Your task to perform on an android device: Find coffee shops on Maps Image 0: 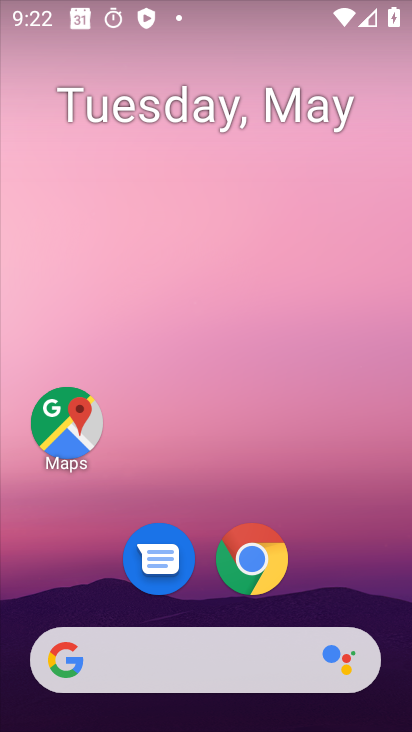
Step 0: press back button
Your task to perform on an android device: Find coffee shops on Maps Image 1: 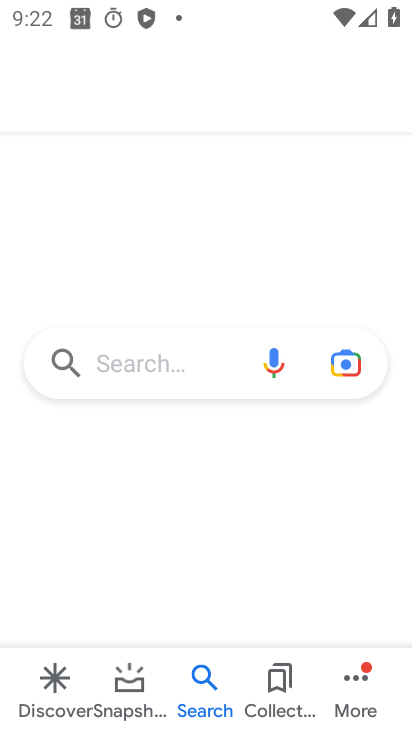
Step 1: press back button
Your task to perform on an android device: Find coffee shops on Maps Image 2: 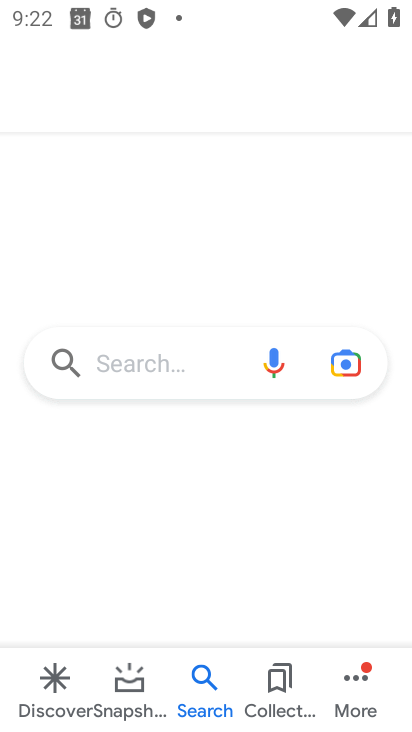
Step 2: press home button
Your task to perform on an android device: Find coffee shops on Maps Image 3: 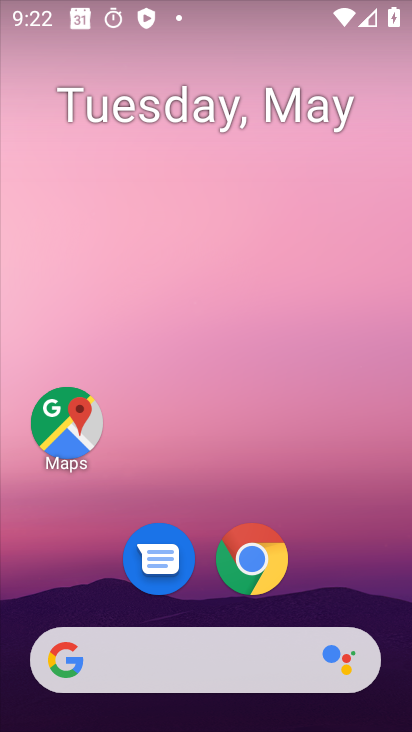
Step 3: drag from (355, 572) to (61, 86)
Your task to perform on an android device: Find coffee shops on Maps Image 4: 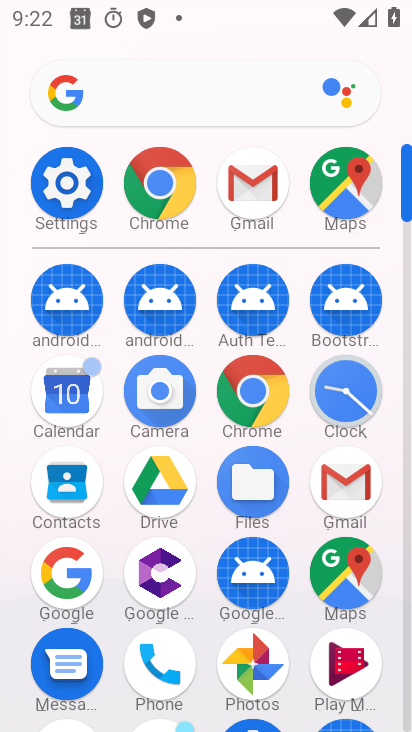
Step 4: click (346, 563)
Your task to perform on an android device: Find coffee shops on Maps Image 5: 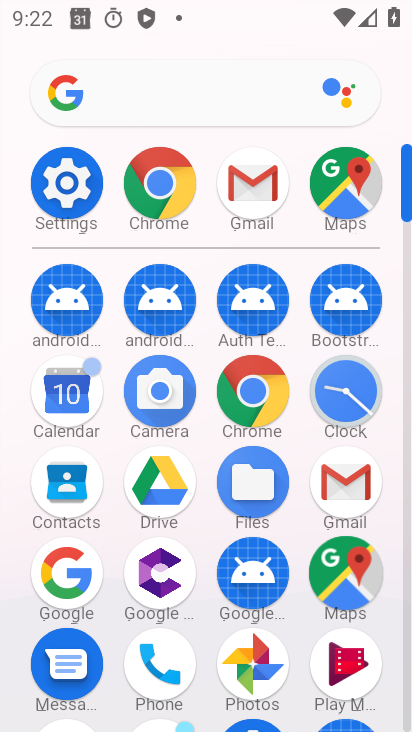
Step 5: click (349, 572)
Your task to perform on an android device: Find coffee shops on Maps Image 6: 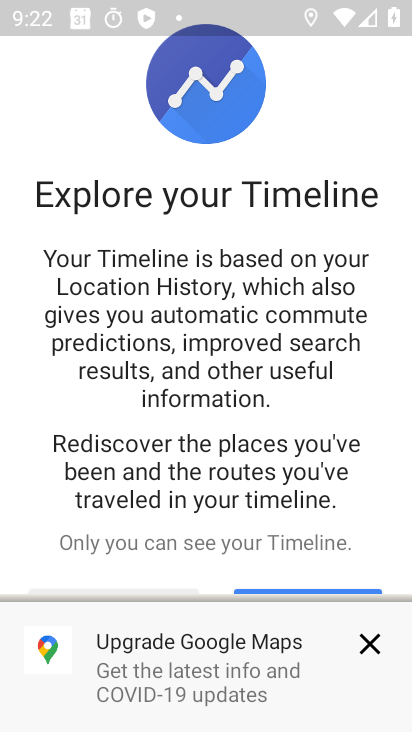
Step 6: click (370, 641)
Your task to perform on an android device: Find coffee shops on Maps Image 7: 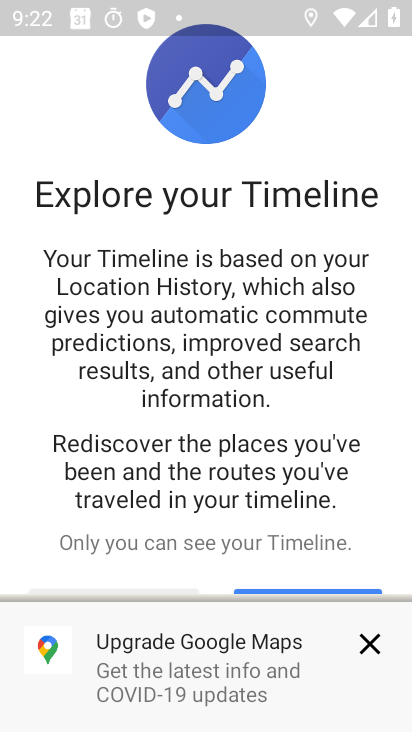
Step 7: click (370, 641)
Your task to perform on an android device: Find coffee shops on Maps Image 8: 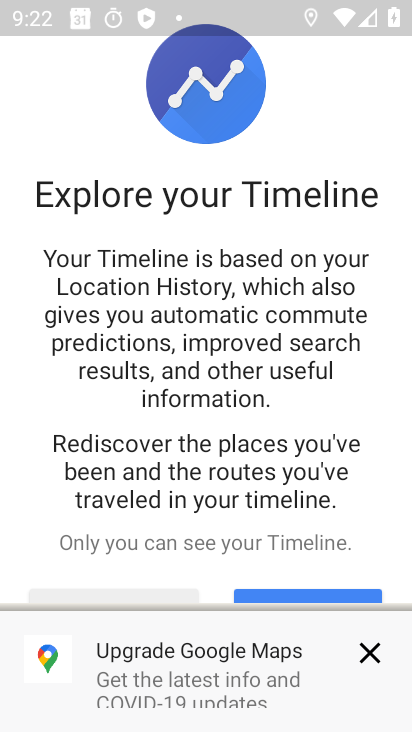
Step 8: click (370, 641)
Your task to perform on an android device: Find coffee shops on Maps Image 9: 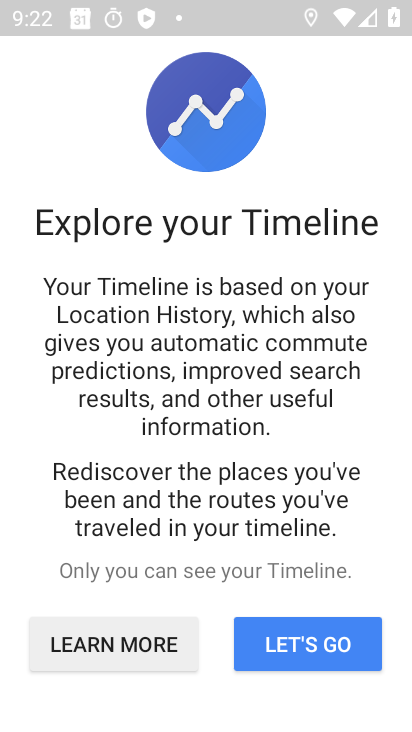
Step 9: click (370, 641)
Your task to perform on an android device: Find coffee shops on Maps Image 10: 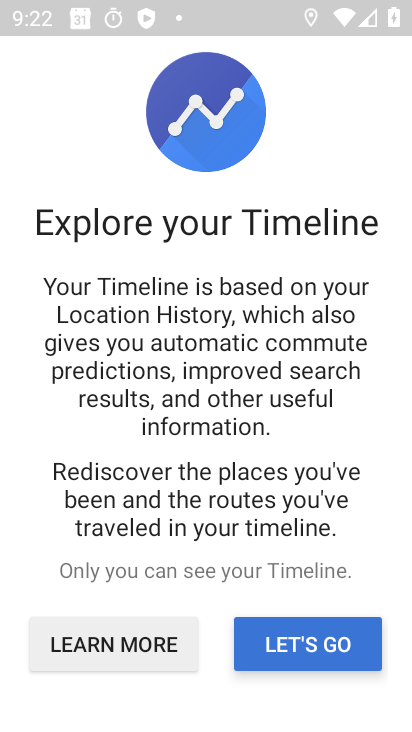
Step 10: click (373, 640)
Your task to perform on an android device: Find coffee shops on Maps Image 11: 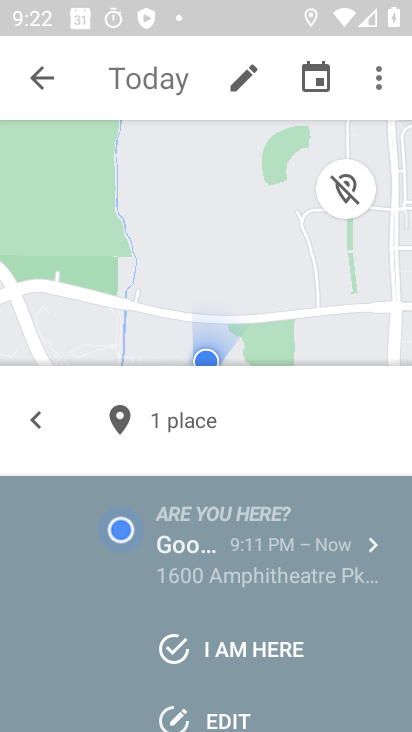
Step 11: click (325, 639)
Your task to perform on an android device: Find coffee shops on Maps Image 12: 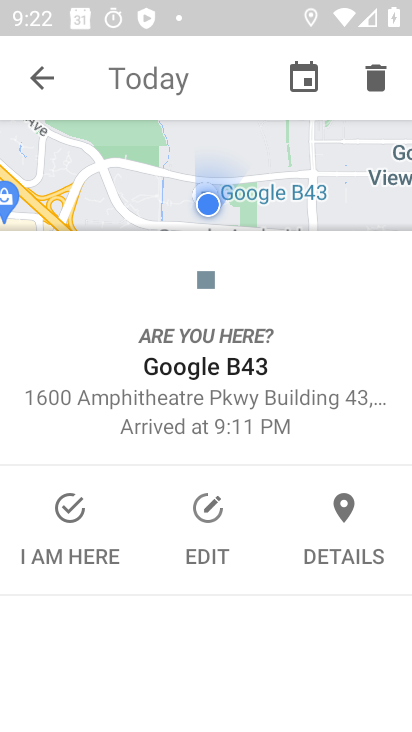
Step 12: click (38, 81)
Your task to perform on an android device: Find coffee shops on Maps Image 13: 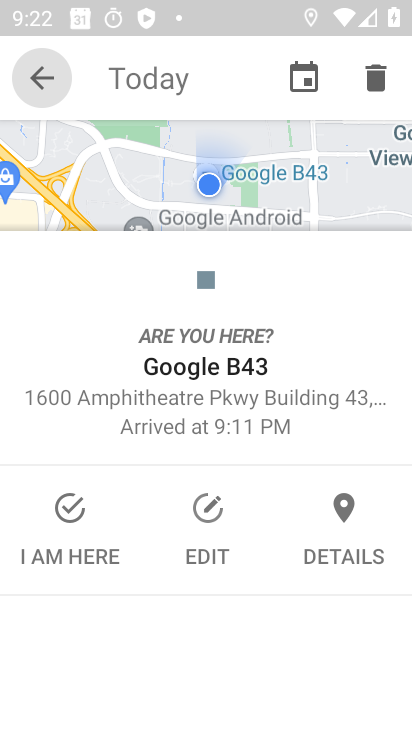
Step 13: click (38, 81)
Your task to perform on an android device: Find coffee shops on Maps Image 14: 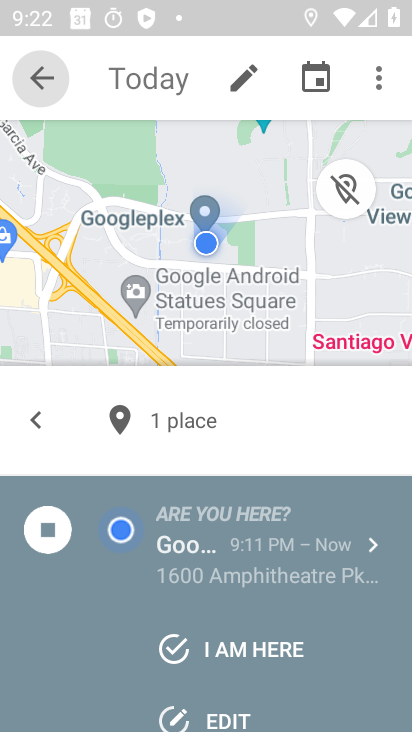
Step 14: click (38, 81)
Your task to perform on an android device: Find coffee shops on Maps Image 15: 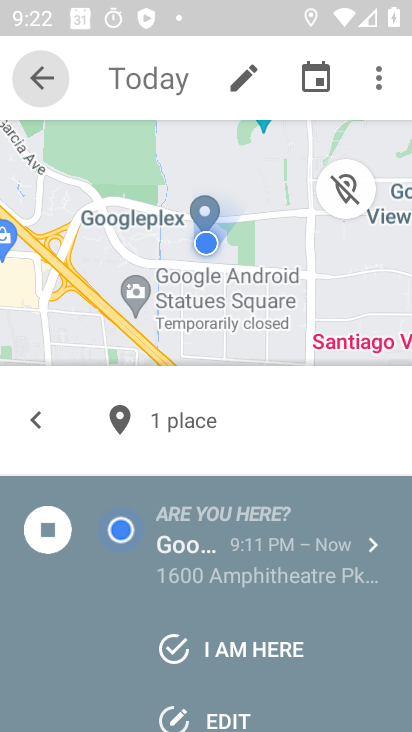
Step 15: click (38, 81)
Your task to perform on an android device: Find coffee shops on Maps Image 16: 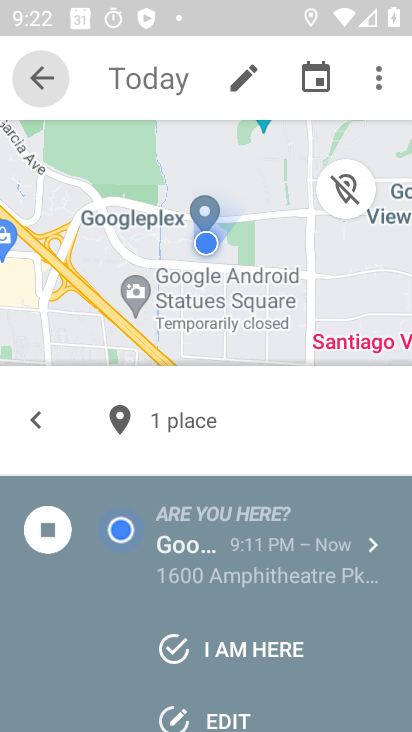
Step 16: click (38, 81)
Your task to perform on an android device: Find coffee shops on Maps Image 17: 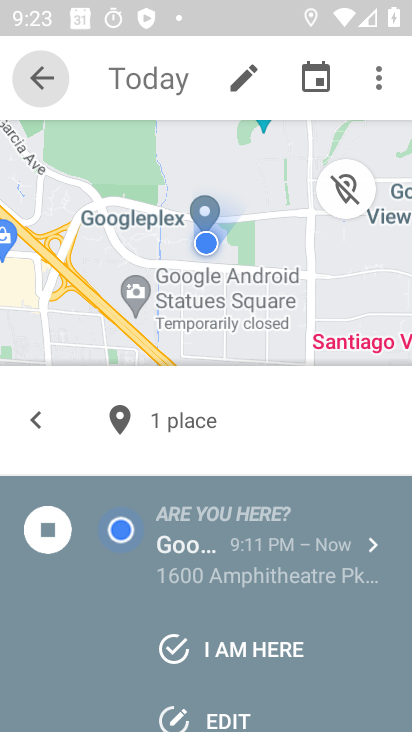
Step 17: click (38, 81)
Your task to perform on an android device: Find coffee shops on Maps Image 18: 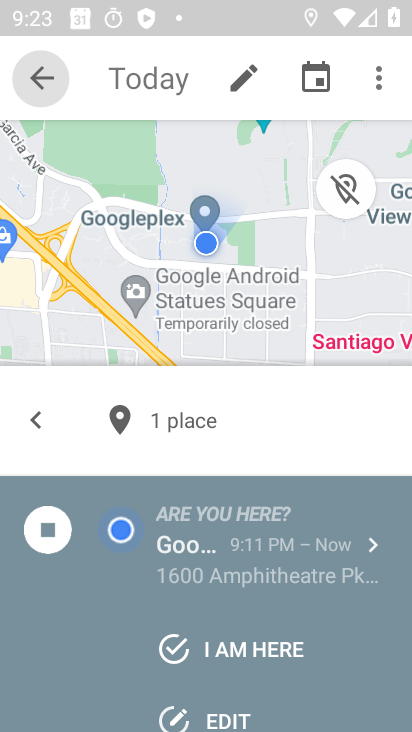
Step 18: click (38, 81)
Your task to perform on an android device: Find coffee shops on Maps Image 19: 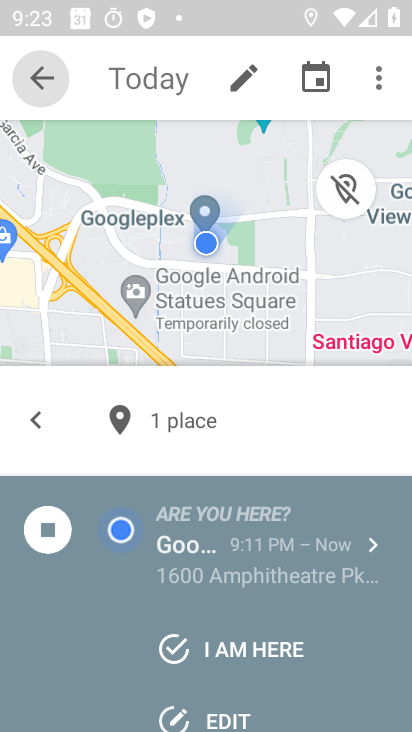
Step 19: click (38, 81)
Your task to perform on an android device: Find coffee shops on Maps Image 20: 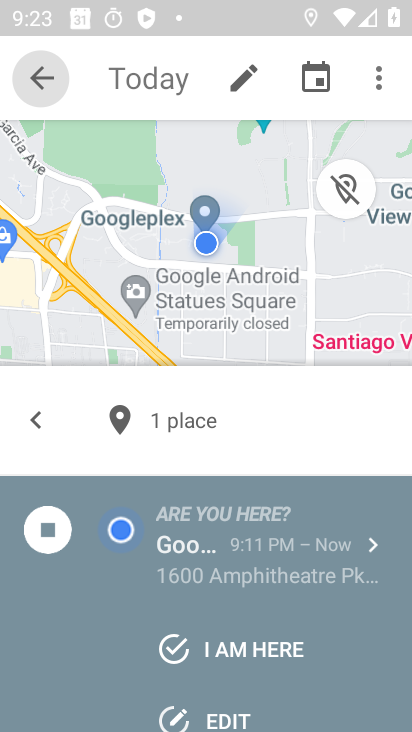
Step 20: press back button
Your task to perform on an android device: Find coffee shops on Maps Image 21: 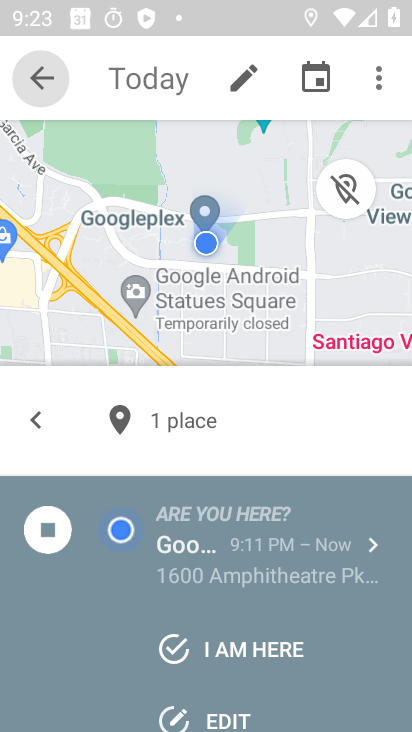
Step 21: press back button
Your task to perform on an android device: Find coffee shops on Maps Image 22: 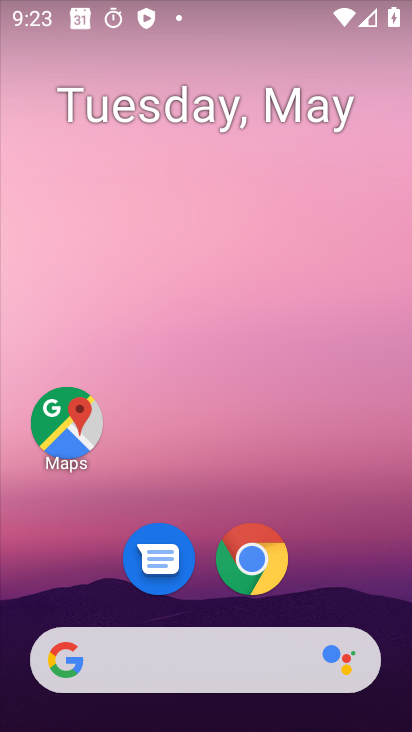
Step 22: drag from (382, 620) to (92, 150)
Your task to perform on an android device: Find coffee shops on Maps Image 23: 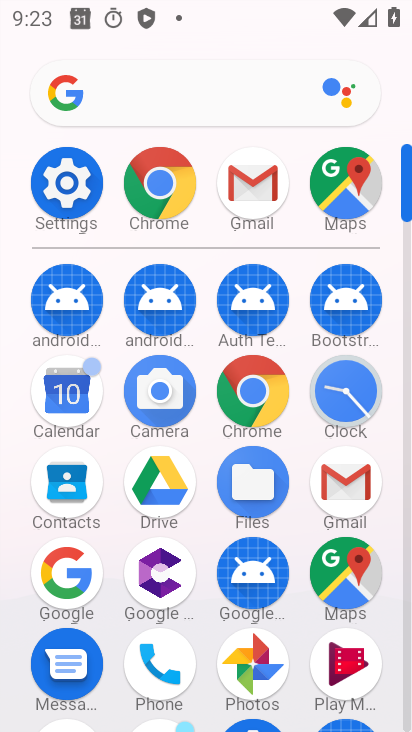
Step 23: click (328, 575)
Your task to perform on an android device: Find coffee shops on Maps Image 24: 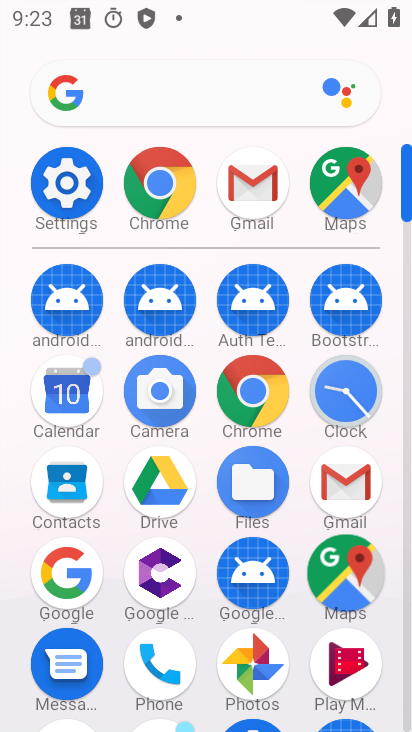
Step 24: click (333, 570)
Your task to perform on an android device: Find coffee shops on Maps Image 25: 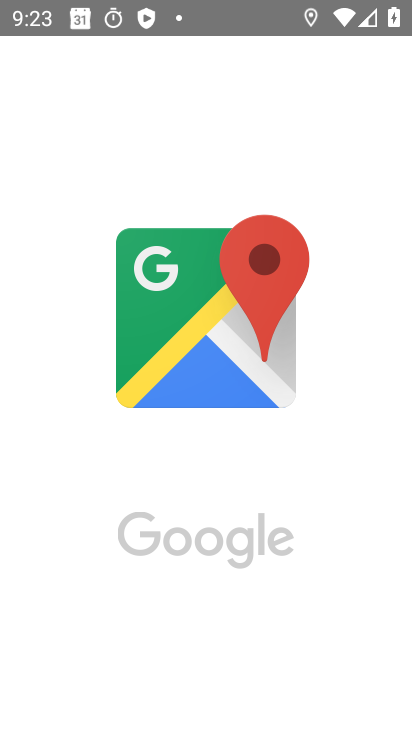
Step 25: click (333, 570)
Your task to perform on an android device: Find coffee shops on Maps Image 26: 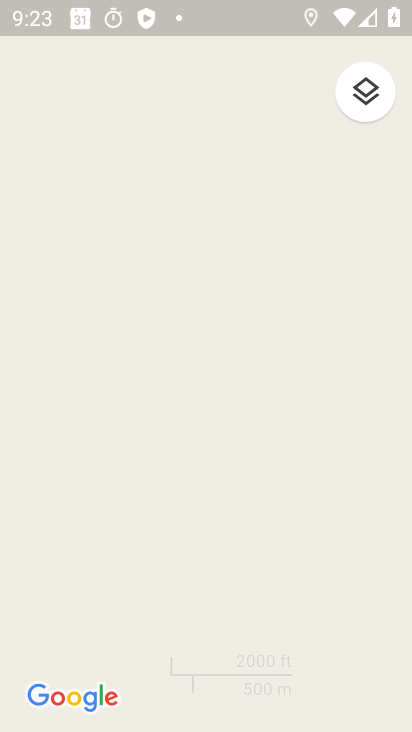
Step 26: click (356, 86)
Your task to perform on an android device: Find coffee shops on Maps Image 27: 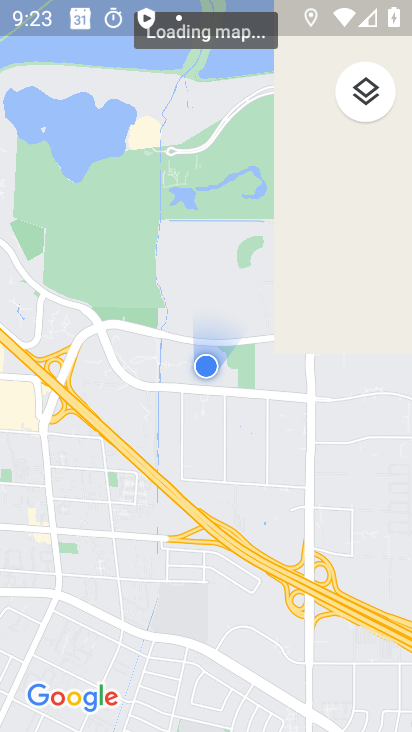
Step 27: click (357, 87)
Your task to perform on an android device: Find coffee shops on Maps Image 28: 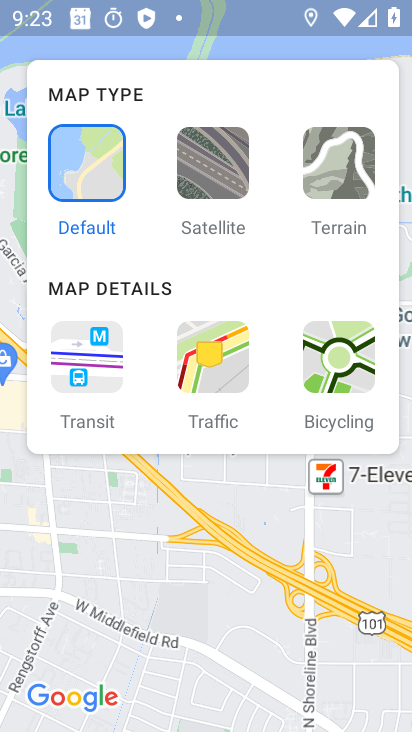
Step 28: click (189, 554)
Your task to perform on an android device: Find coffee shops on Maps Image 29: 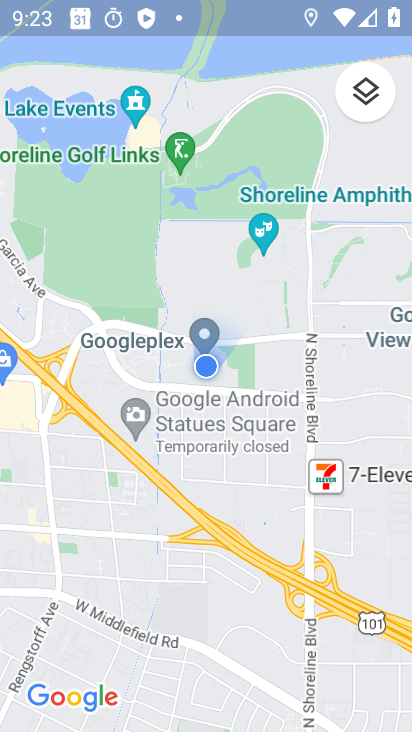
Step 29: click (175, 339)
Your task to perform on an android device: Find coffee shops on Maps Image 30: 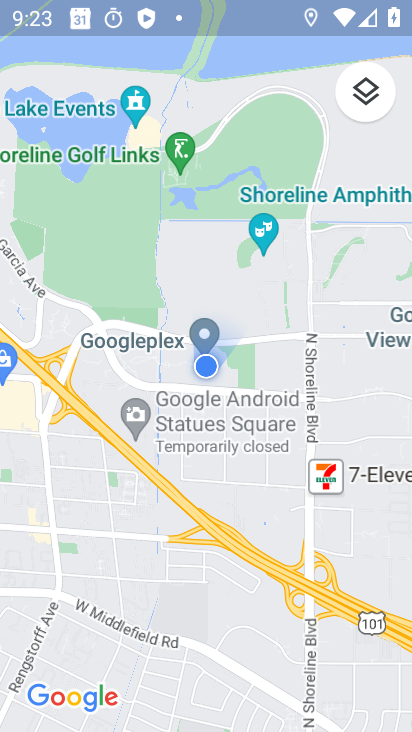
Step 30: click (182, 334)
Your task to perform on an android device: Find coffee shops on Maps Image 31: 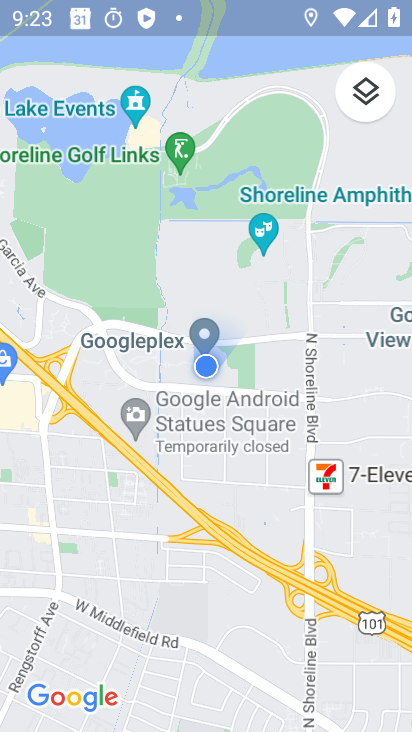
Step 31: click (184, 332)
Your task to perform on an android device: Find coffee shops on Maps Image 32: 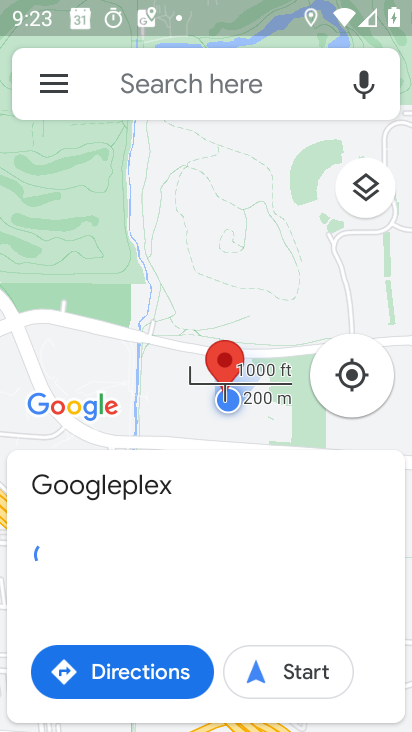
Step 32: press back button
Your task to perform on an android device: Find coffee shops on Maps Image 33: 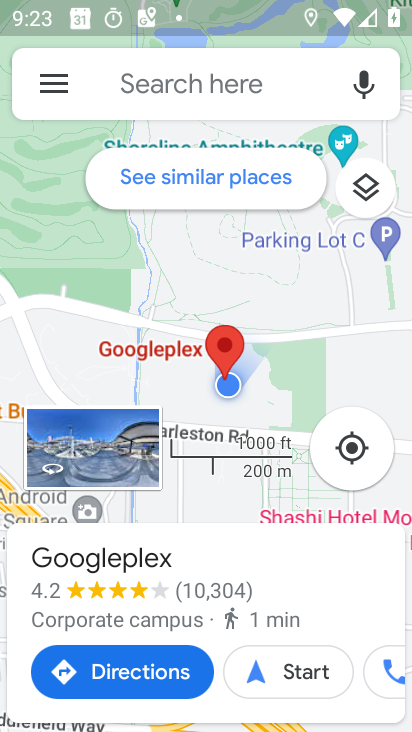
Step 33: press back button
Your task to perform on an android device: Find coffee shops on Maps Image 34: 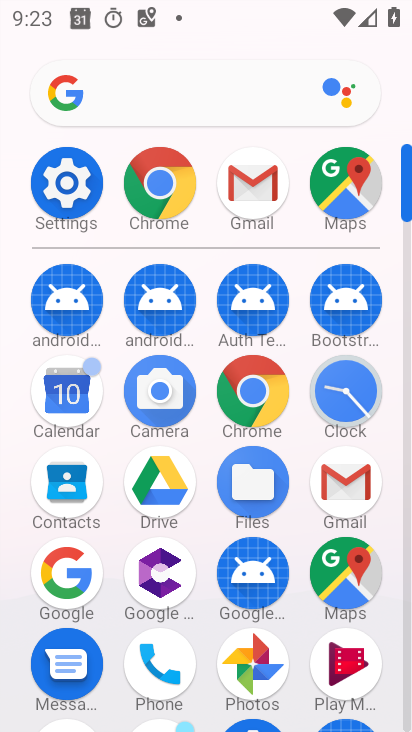
Step 34: click (338, 552)
Your task to perform on an android device: Find coffee shops on Maps Image 35: 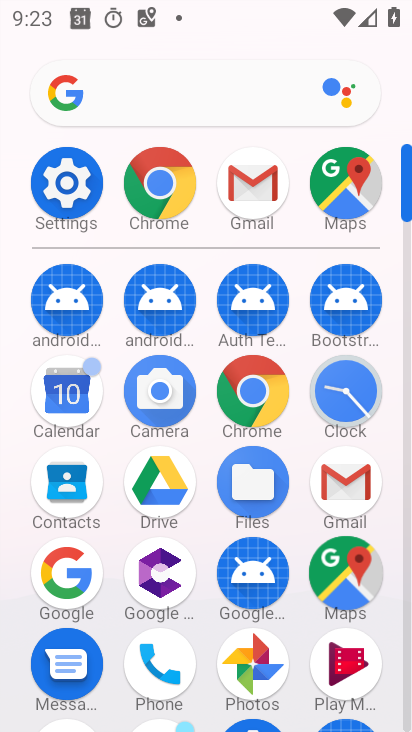
Step 35: click (348, 561)
Your task to perform on an android device: Find coffee shops on Maps Image 36: 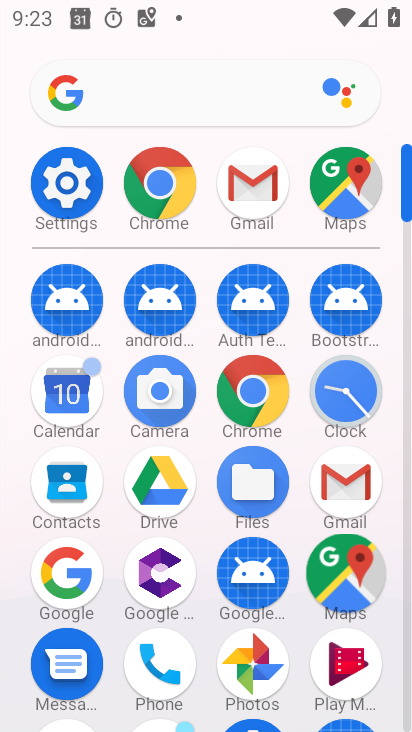
Step 36: click (349, 562)
Your task to perform on an android device: Find coffee shops on Maps Image 37: 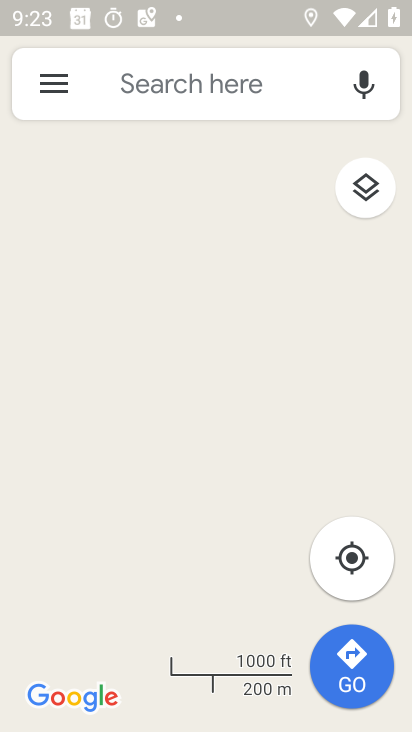
Step 37: click (115, 80)
Your task to perform on an android device: Find coffee shops on Maps Image 38: 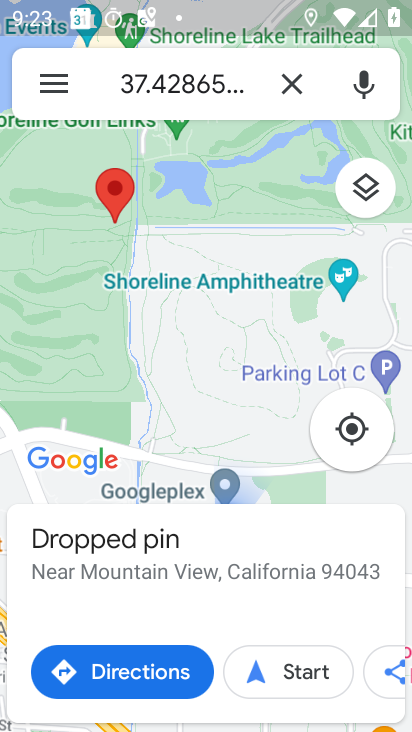
Step 38: click (281, 88)
Your task to perform on an android device: Find coffee shops on Maps Image 39: 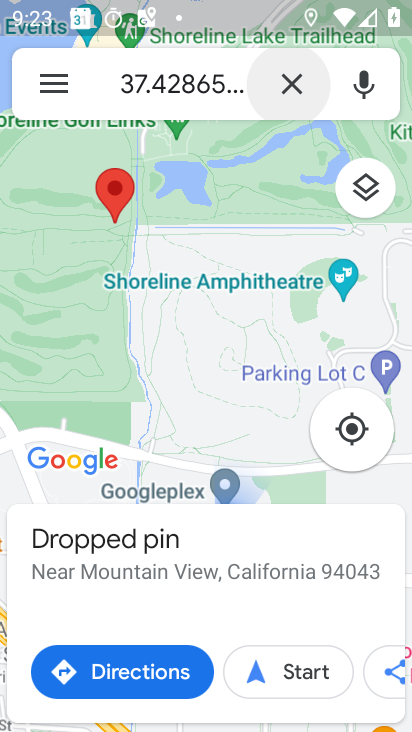
Step 39: click (282, 89)
Your task to perform on an android device: Find coffee shops on Maps Image 40: 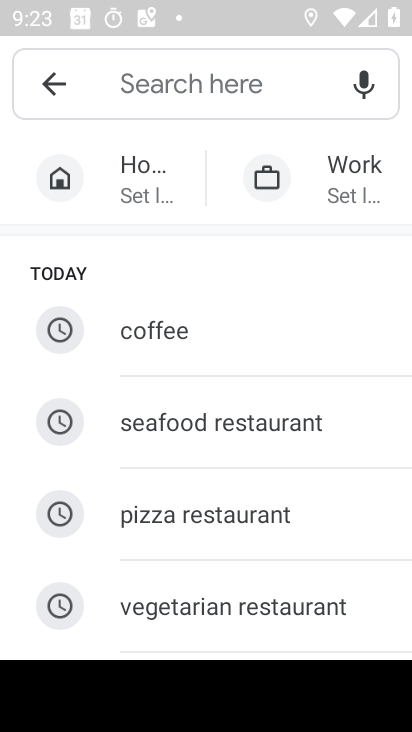
Step 40: click (142, 331)
Your task to perform on an android device: Find coffee shops on Maps Image 41: 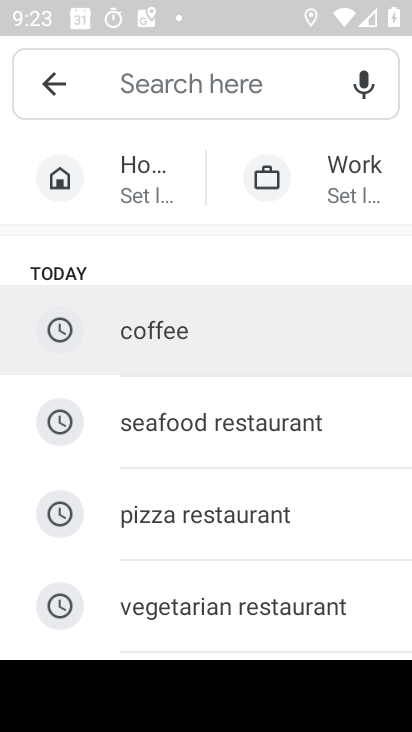
Step 41: click (142, 331)
Your task to perform on an android device: Find coffee shops on Maps Image 42: 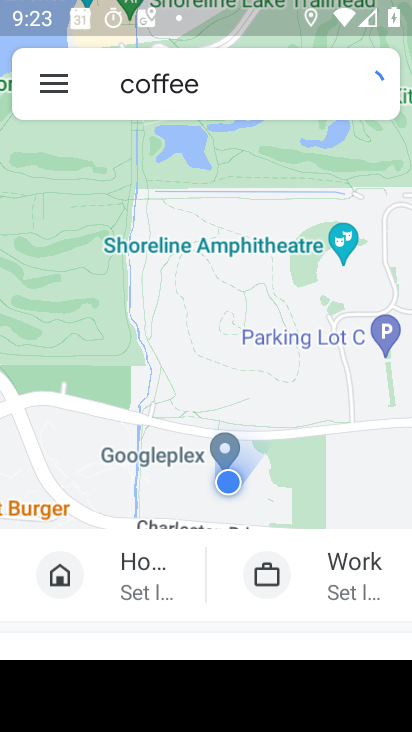
Step 42: click (142, 331)
Your task to perform on an android device: Find coffee shops on Maps Image 43: 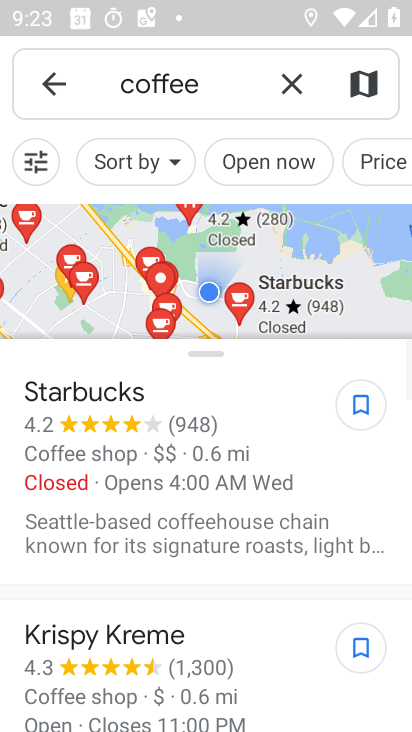
Step 43: task complete